Your task to perform on an android device: Search for the best coffee tables on Crate & Barrel Image 0: 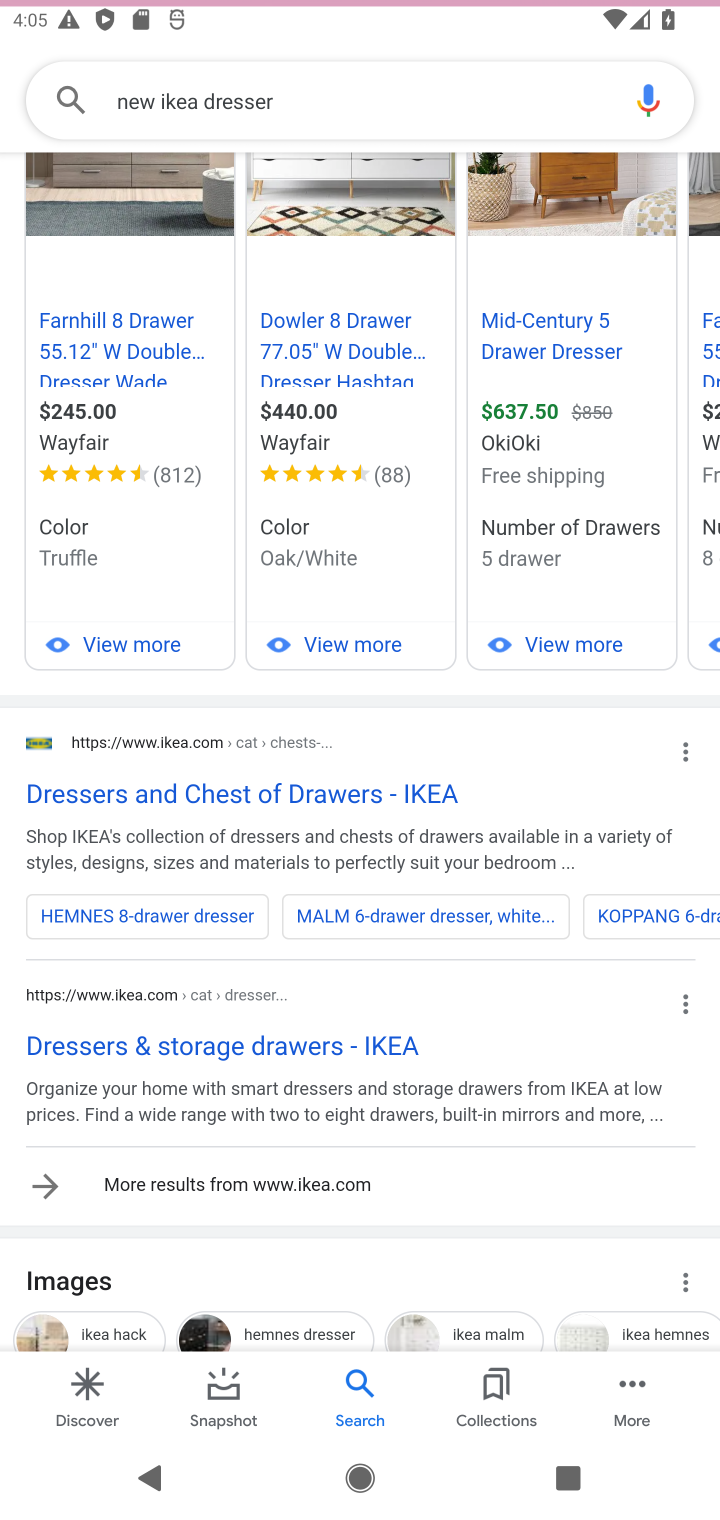
Step 0: press home button
Your task to perform on an android device: Search for the best coffee tables on Crate & Barrel Image 1: 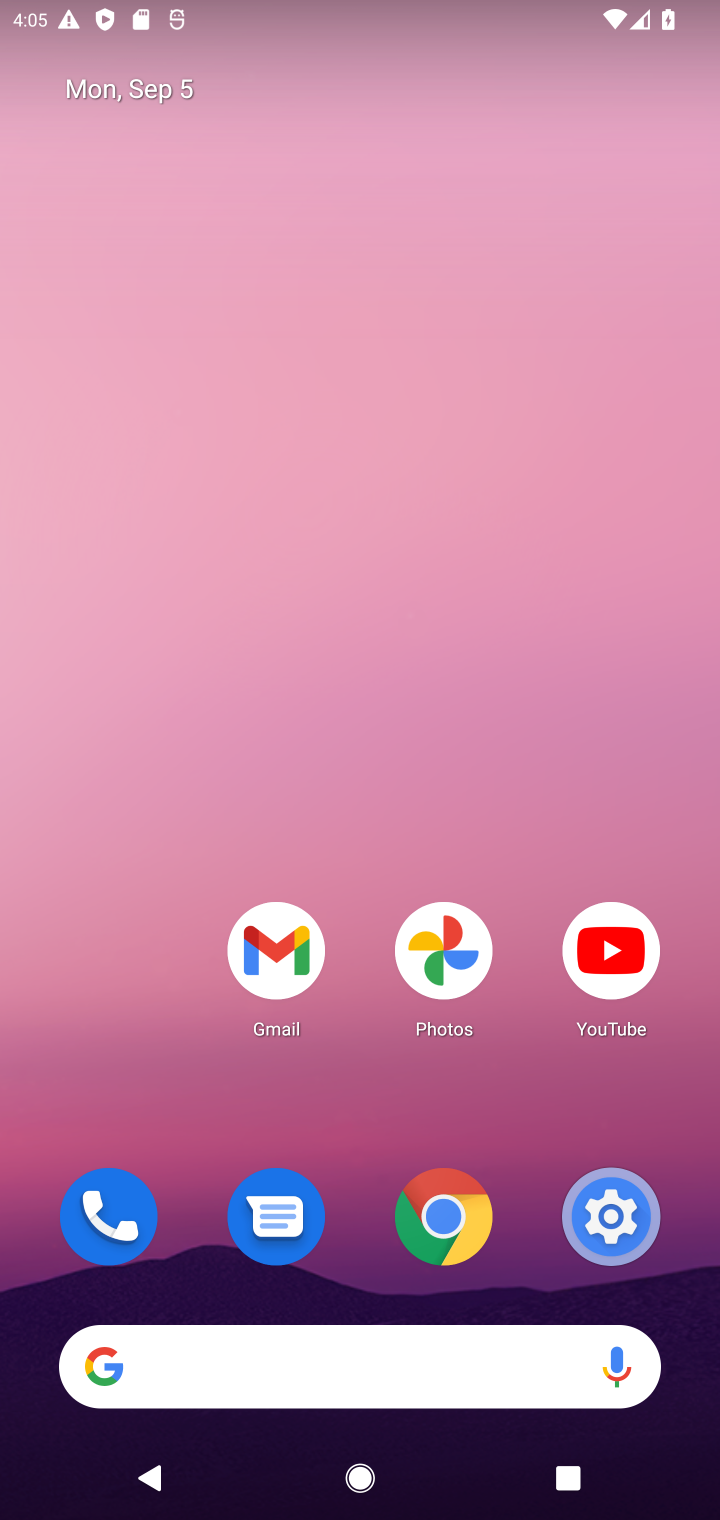
Step 1: click (90, 1380)
Your task to perform on an android device: Search for the best coffee tables on Crate & Barrel Image 2: 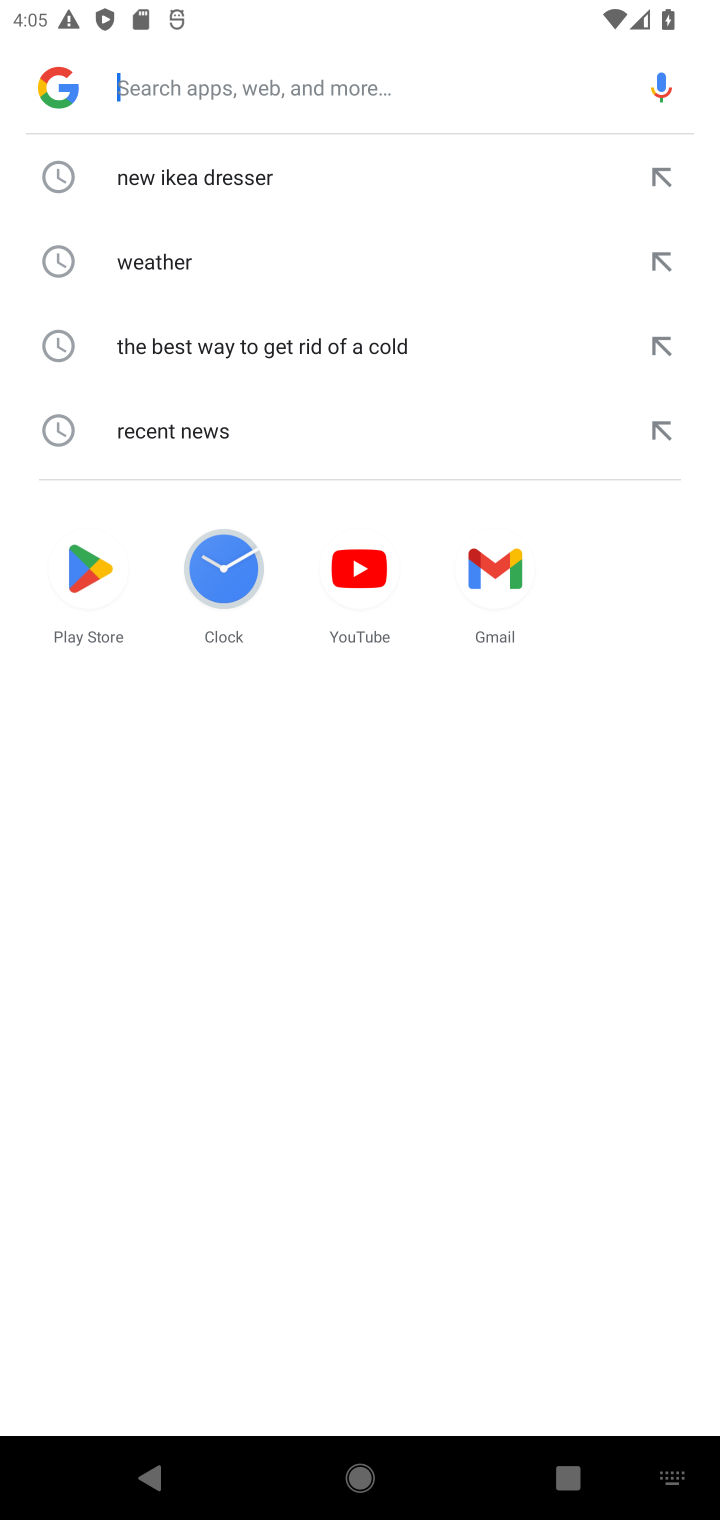
Step 2: type "Crate & Barrel"
Your task to perform on an android device: Search for the best coffee tables on Crate & Barrel Image 3: 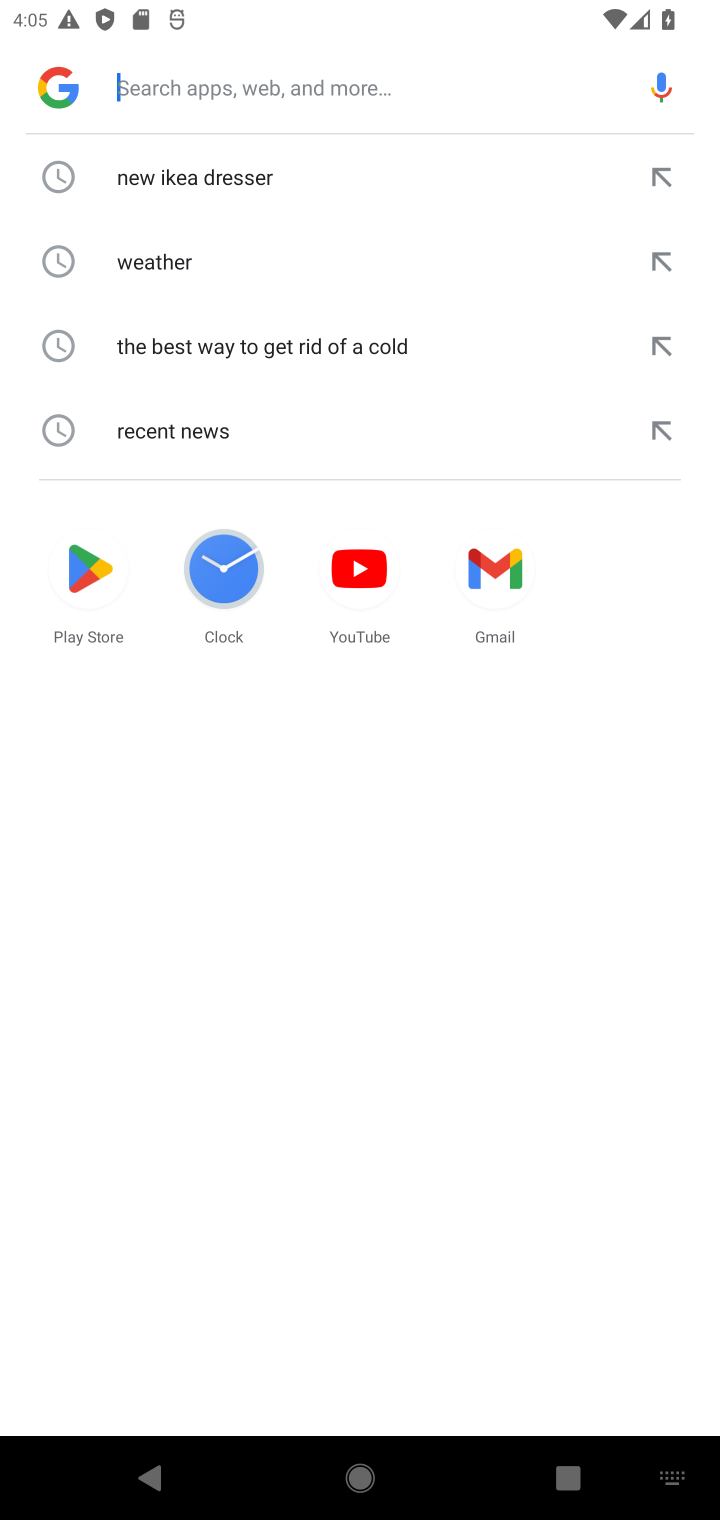
Step 3: click (204, 86)
Your task to perform on an android device: Search for the best coffee tables on Crate & Barrel Image 4: 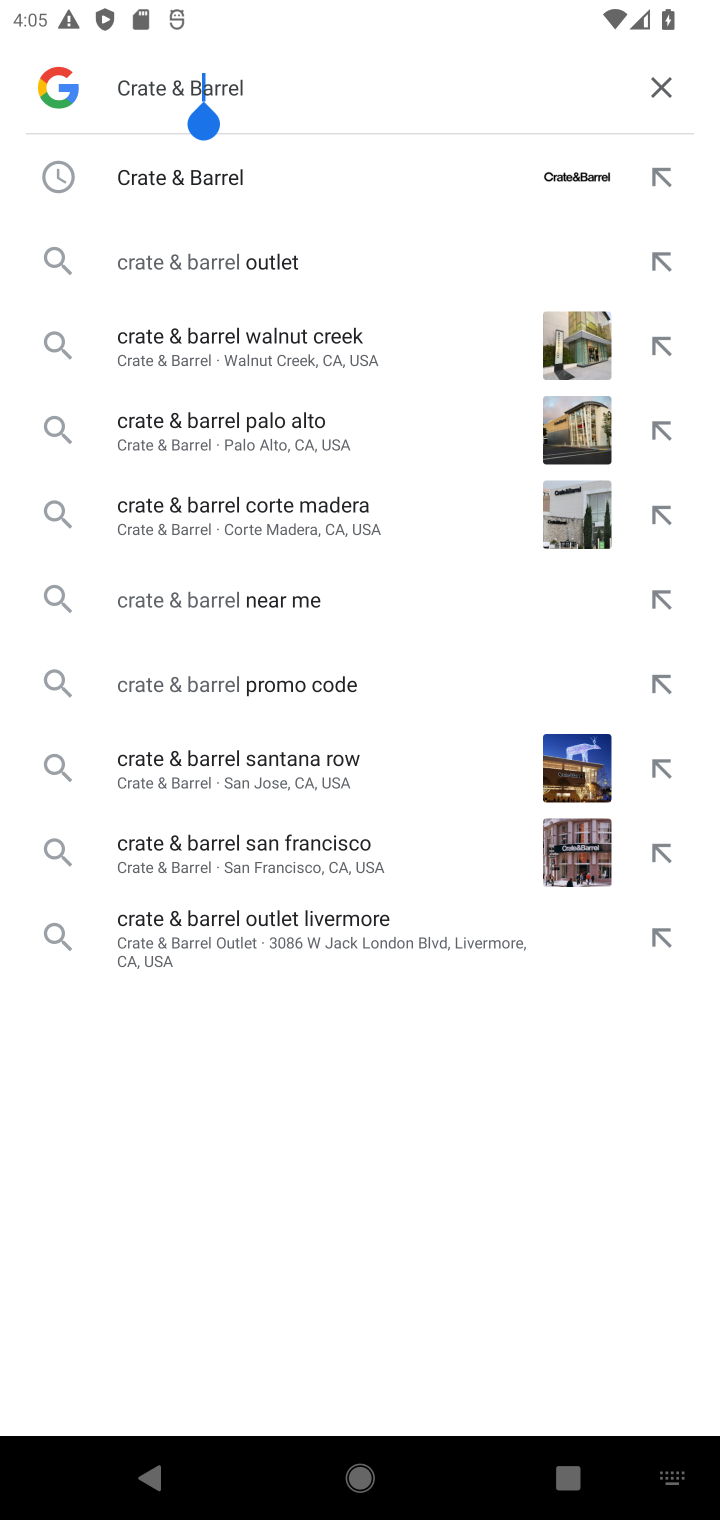
Step 4: press enter
Your task to perform on an android device: Search for the best coffee tables on Crate & Barrel Image 5: 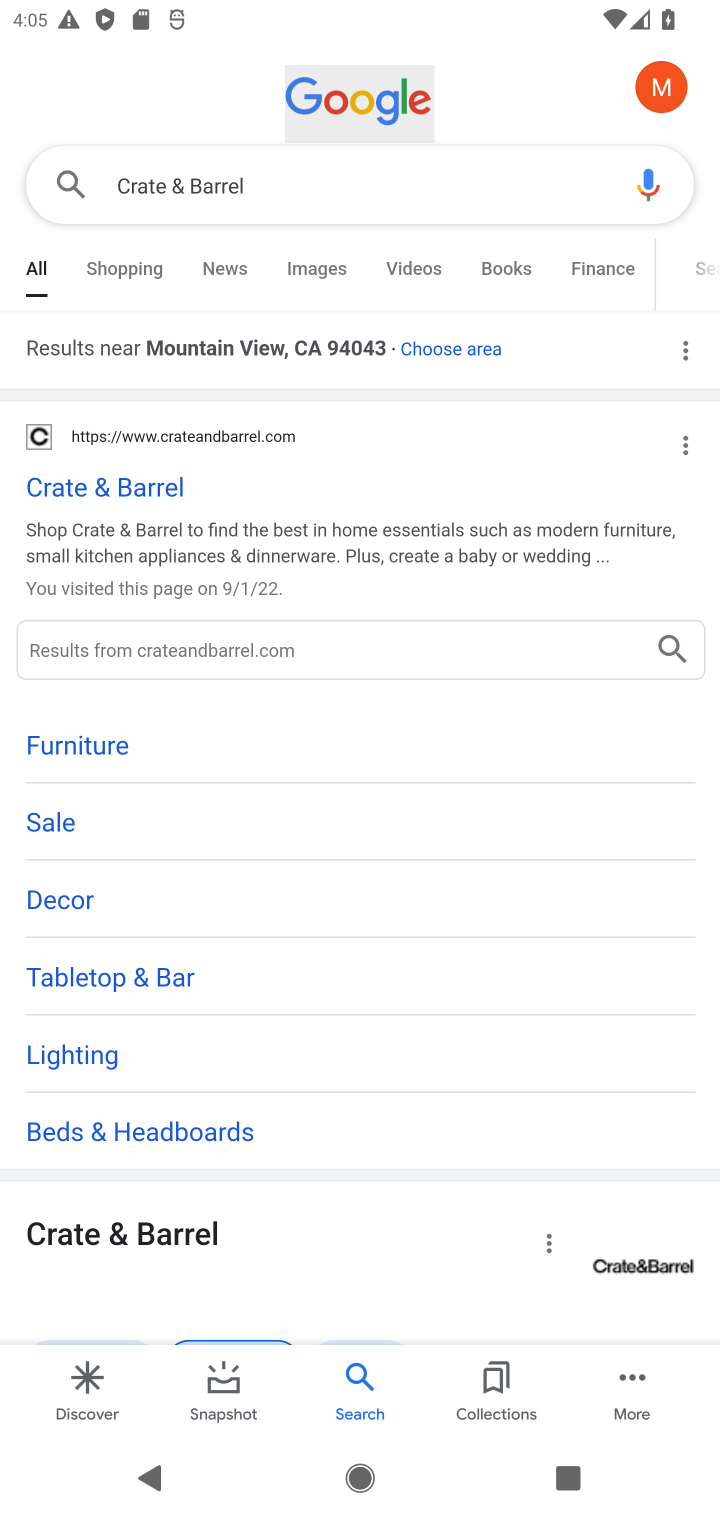
Step 5: click (101, 491)
Your task to perform on an android device: Search for the best coffee tables on Crate & Barrel Image 6: 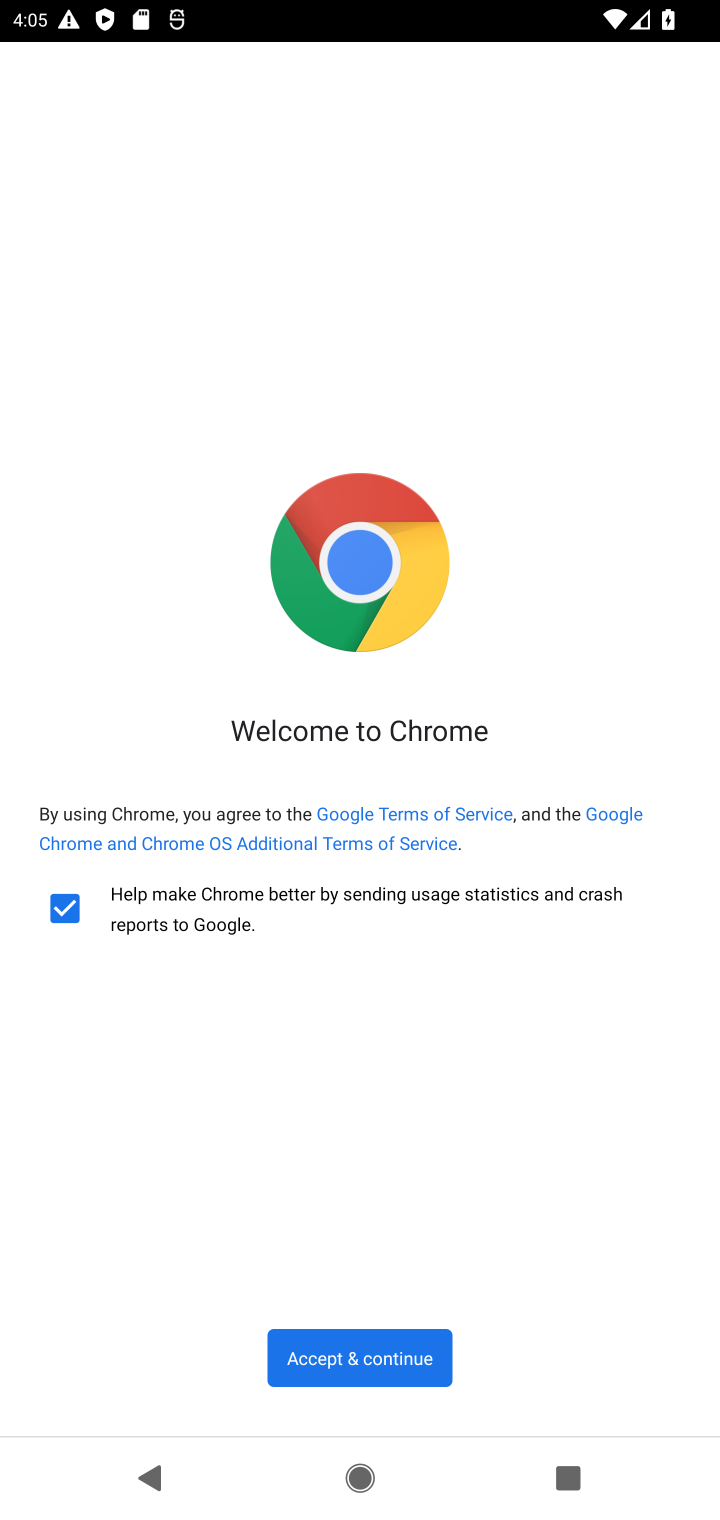
Step 6: click (364, 1354)
Your task to perform on an android device: Search for the best coffee tables on Crate & Barrel Image 7: 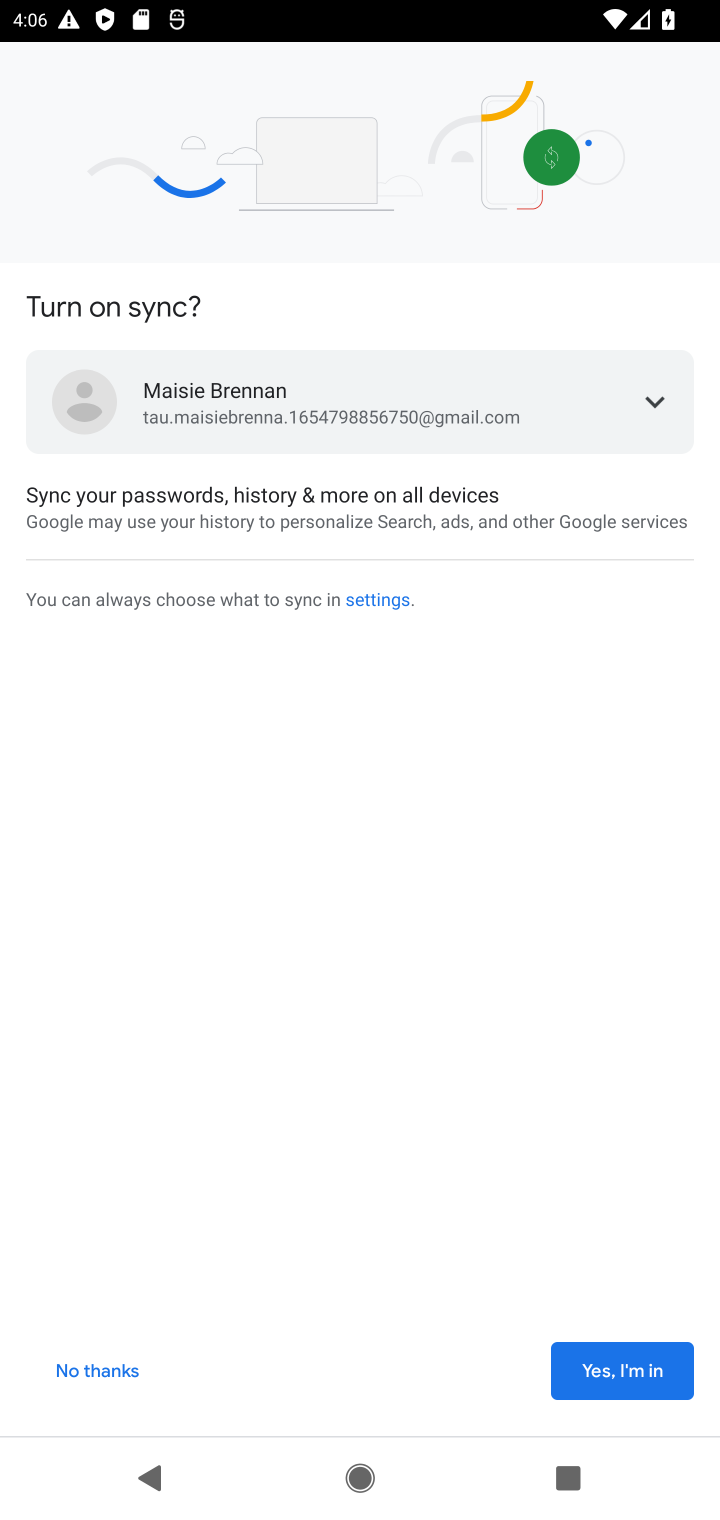
Step 7: click (76, 1375)
Your task to perform on an android device: Search for the best coffee tables on Crate & Barrel Image 8: 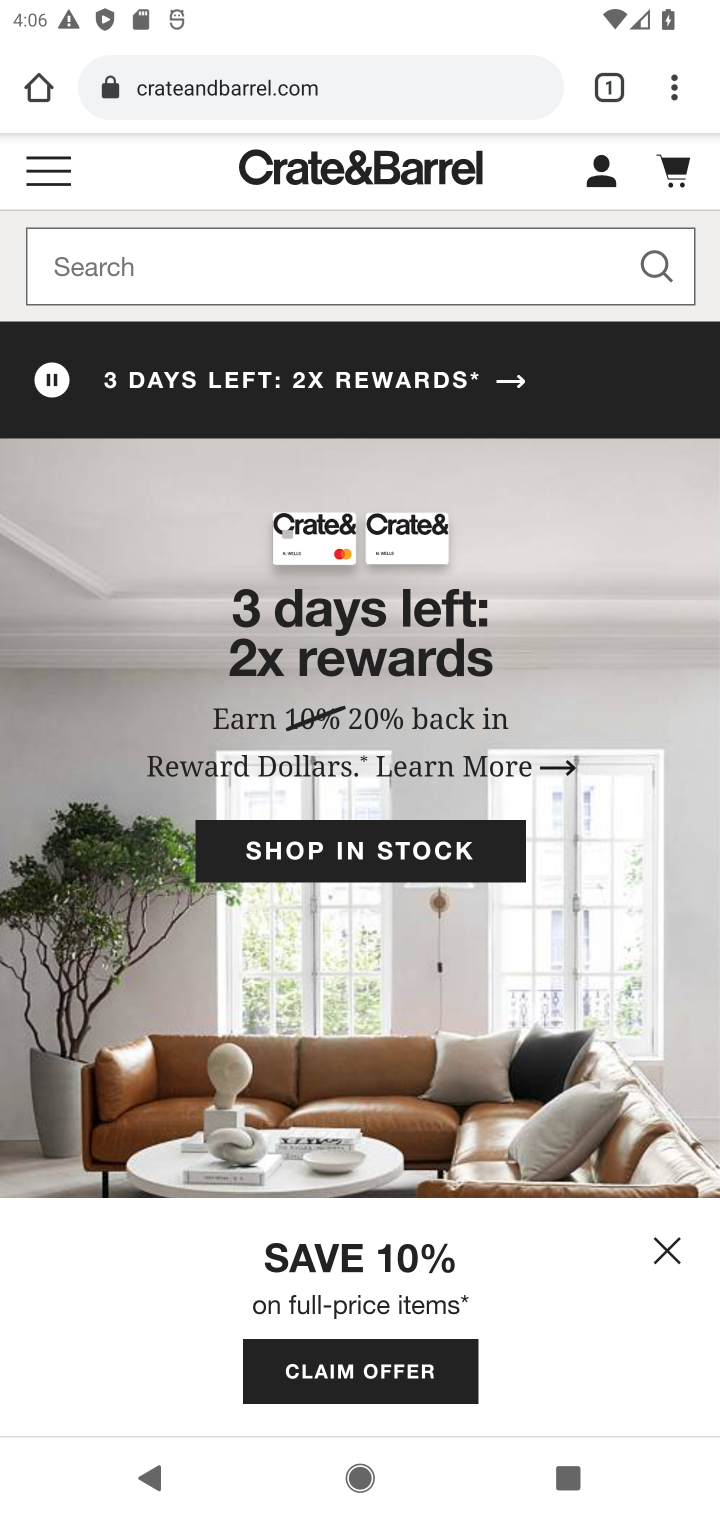
Step 8: click (667, 1242)
Your task to perform on an android device: Search for the best coffee tables on Crate & Barrel Image 9: 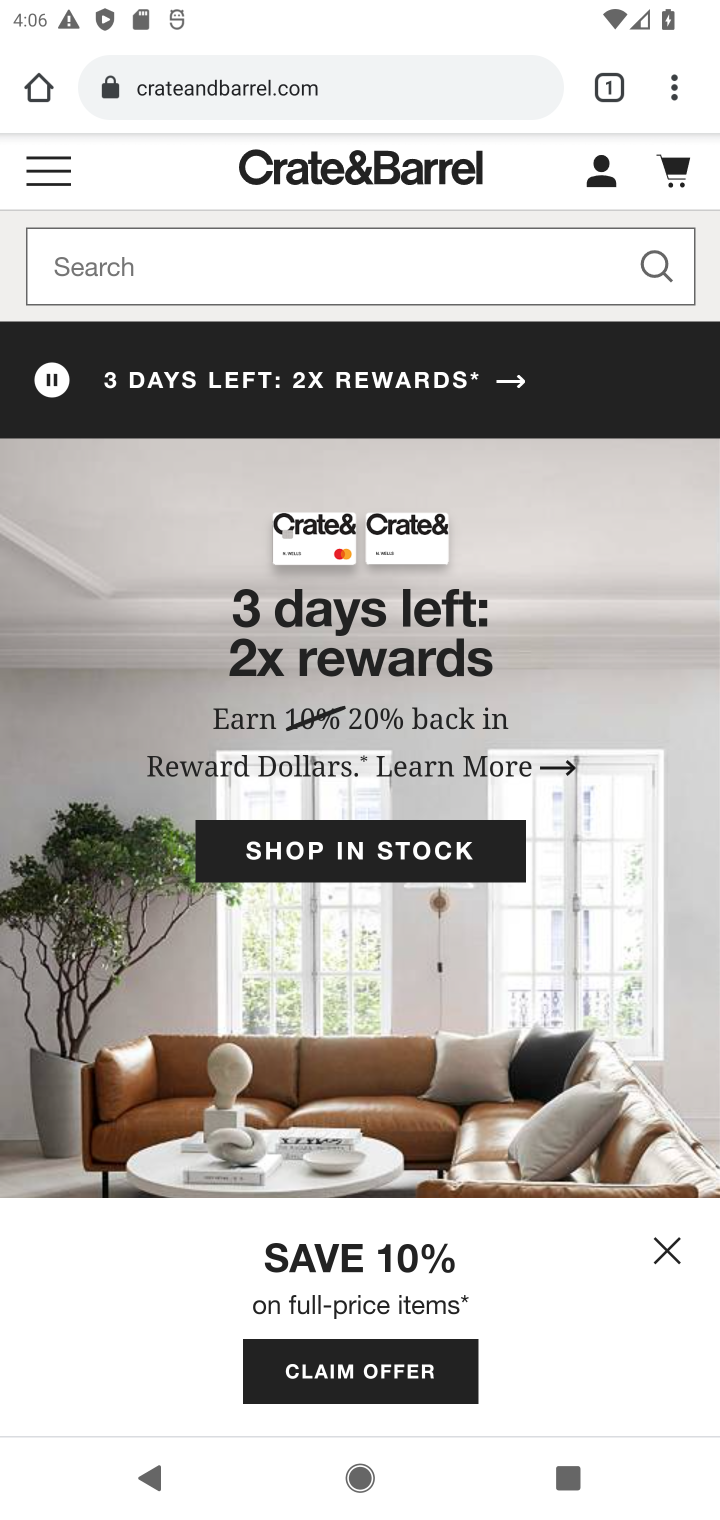
Step 9: click (277, 274)
Your task to perform on an android device: Search for the best coffee tables on Crate & Barrel Image 10: 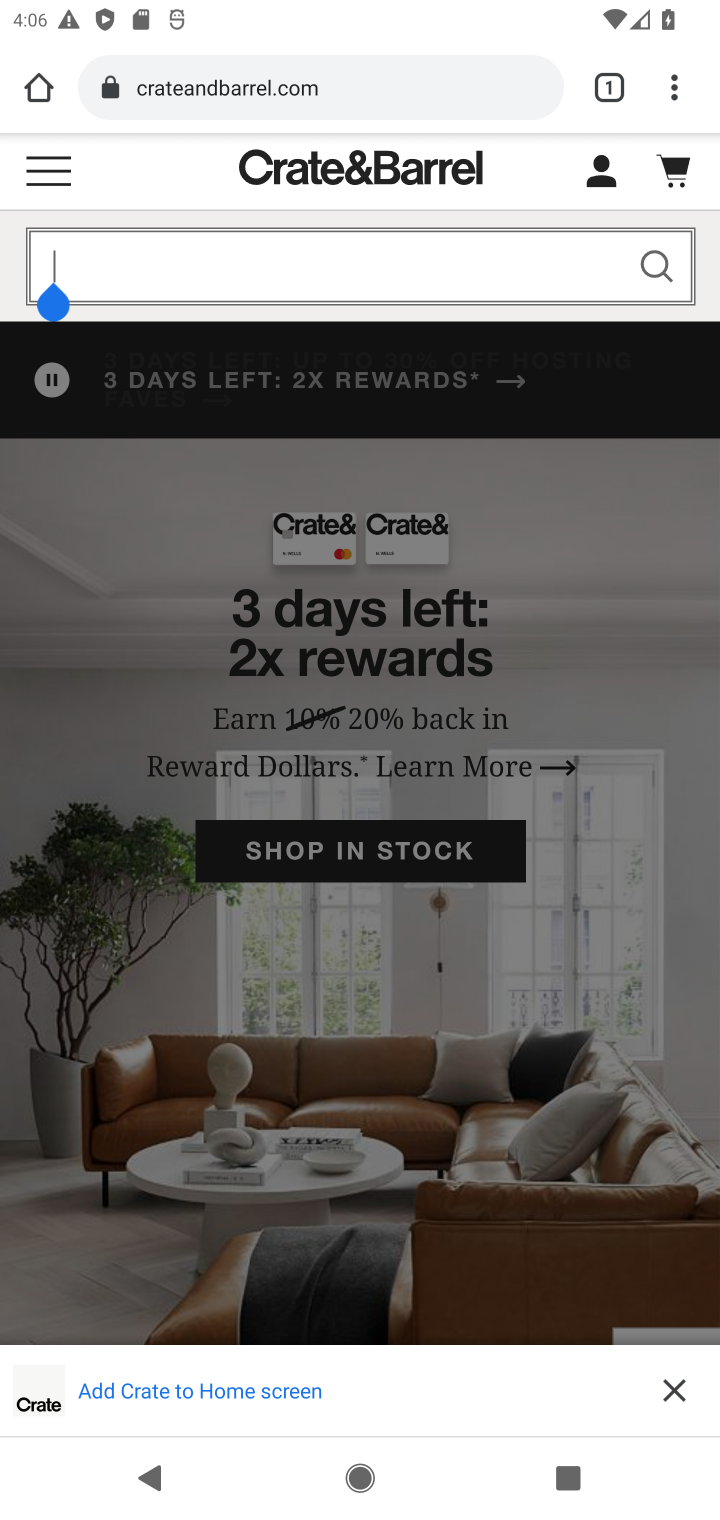
Step 10: type "best coffee tables"
Your task to perform on an android device: Search for the best coffee tables on Crate & Barrel Image 11: 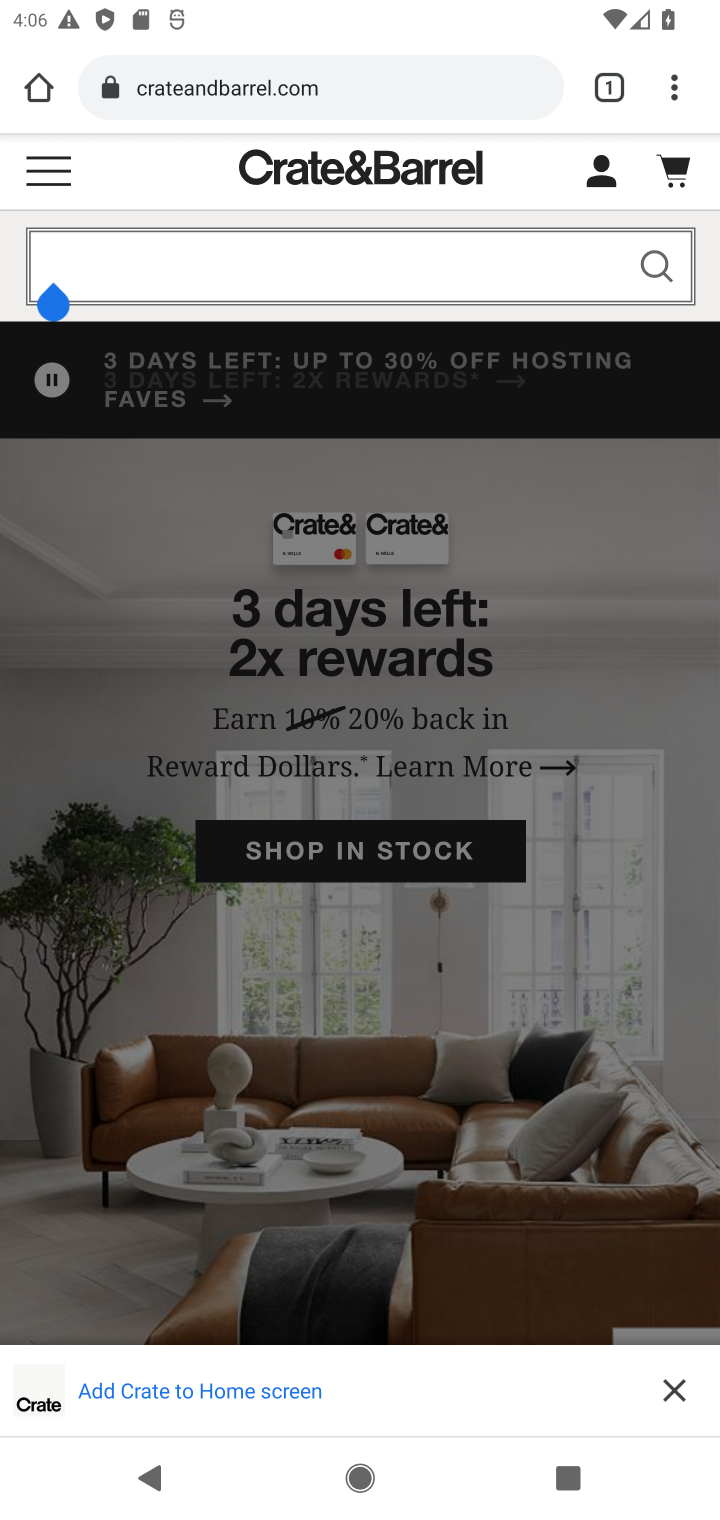
Step 11: click (214, 278)
Your task to perform on an android device: Search for the best coffee tables on Crate & Barrel Image 12: 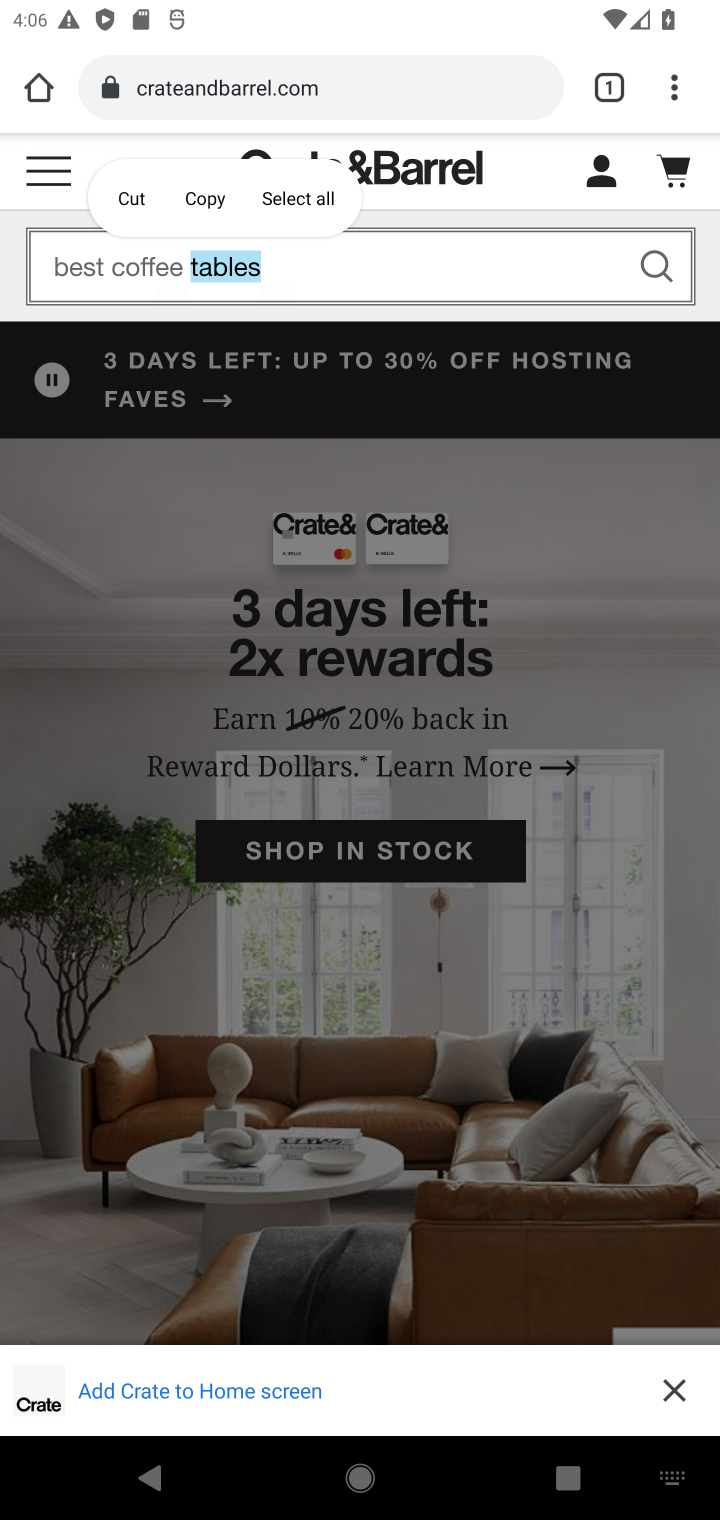
Step 12: press enter
Your task to perform on an android device: Search for the best coffee tables on Crate & Barrel Image 13: 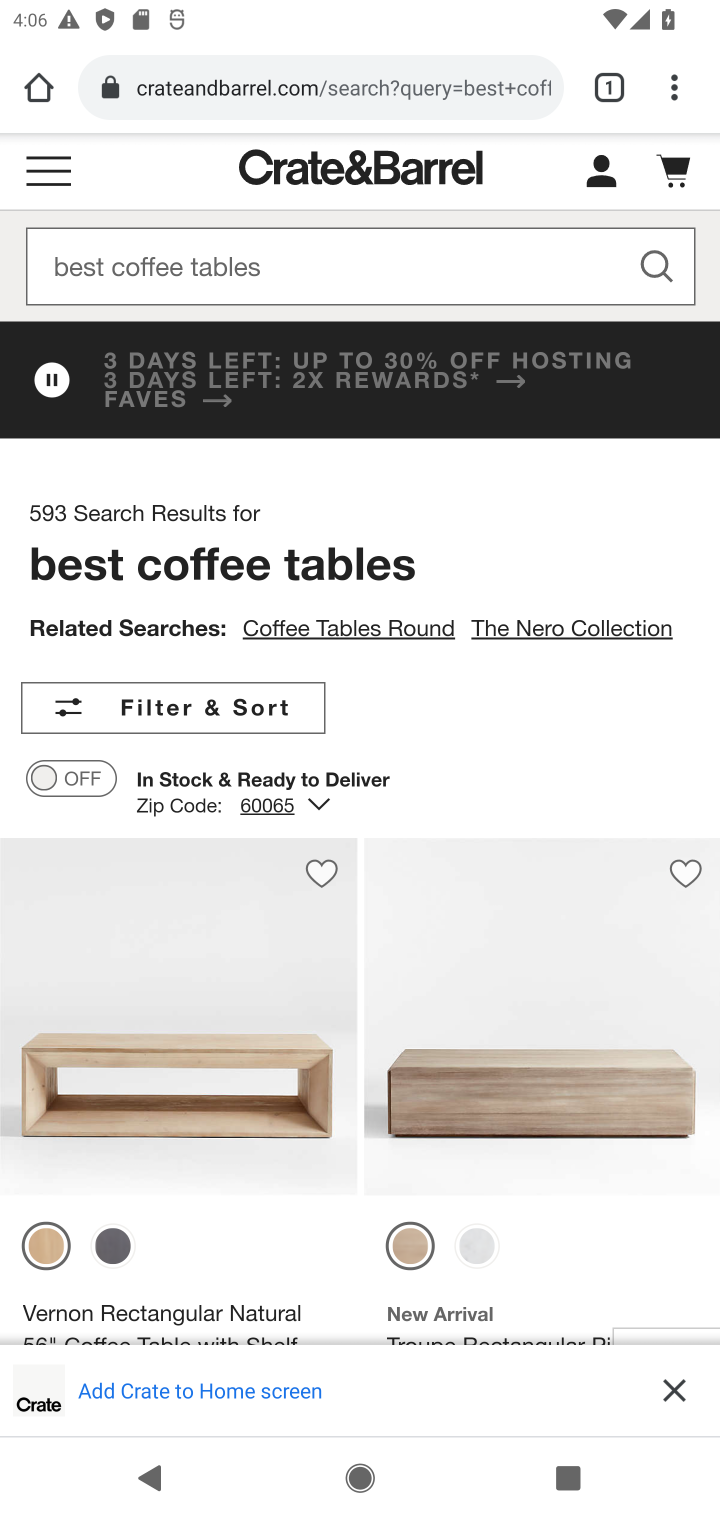
Step 13: task complete